Your task to perform on an android device: all mails in gmail Image 0: 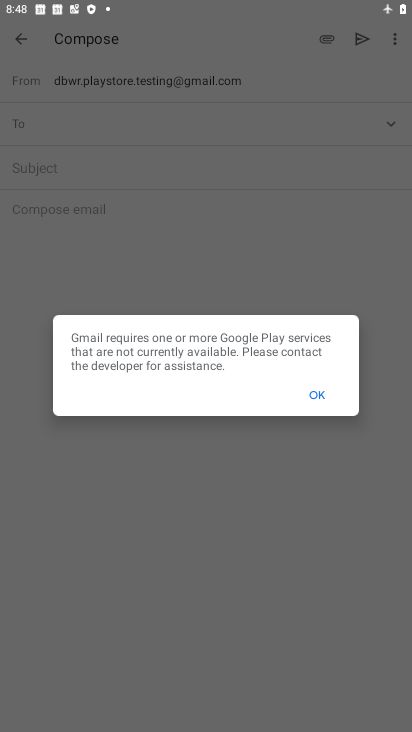
Step 0: press home button
Your task to perform on an android device: all mails in gmail Image 1: 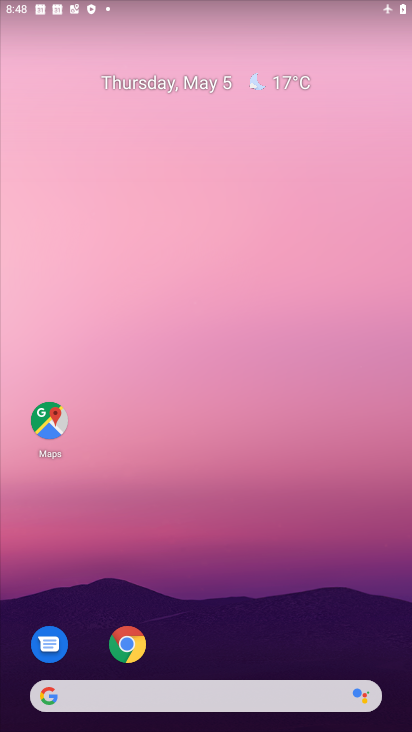
Step 1: drag from (192, 663) to (214, 221)
Your task to perform on an android device: all mails in gmail Image 2: 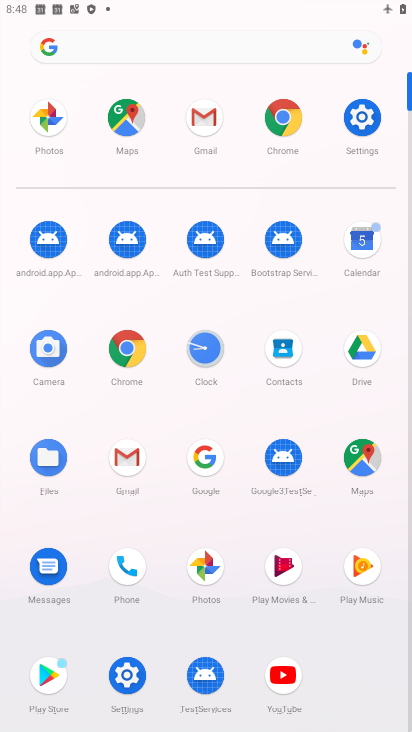
Step 2: click (131, 454)
Your task to perform on an android device: all mails in gmail Image 3: 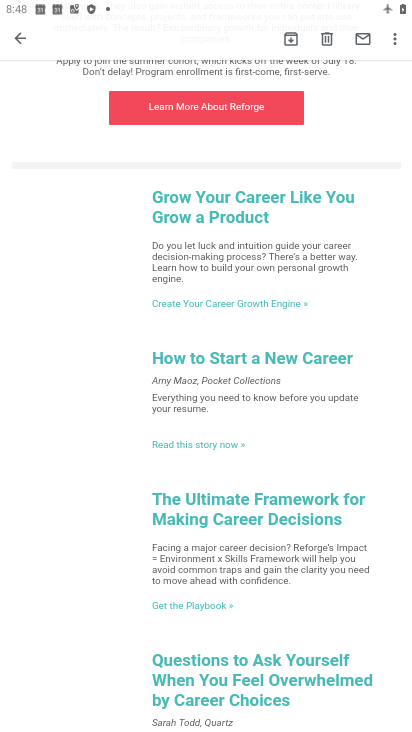
Step 3: click (12, 34)
Your task to perform on an android device: all mails in gmail Image 4: 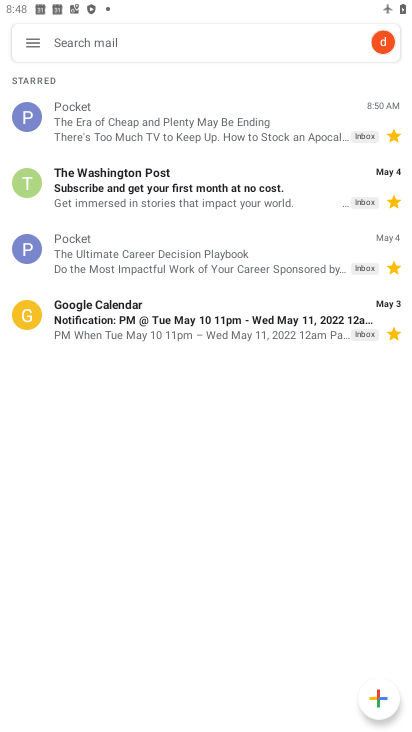
Step 4: click (39, 42)
Your task to perform on an android device: all mails in gmail Image 5: 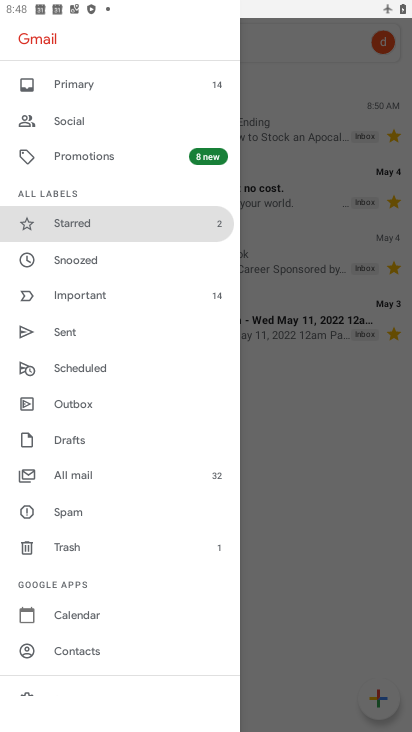
Step 5: click (86, 477)
Your task to perform on an android device: all mails in gmail Image 6: 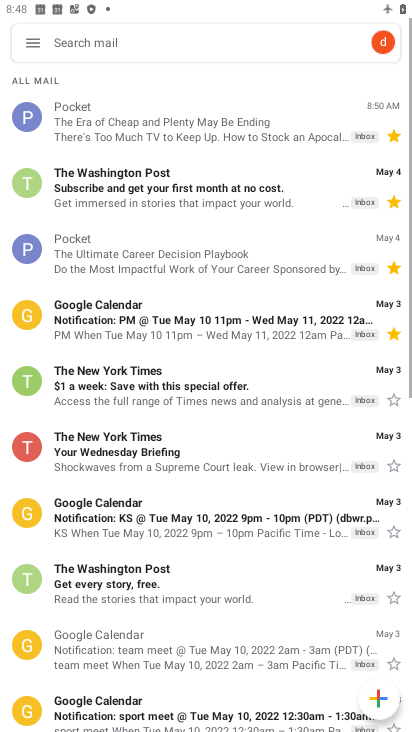
Step 6: task complete